Your task to perform on an android device: Open calendar and show me the first week of next month Image 0: 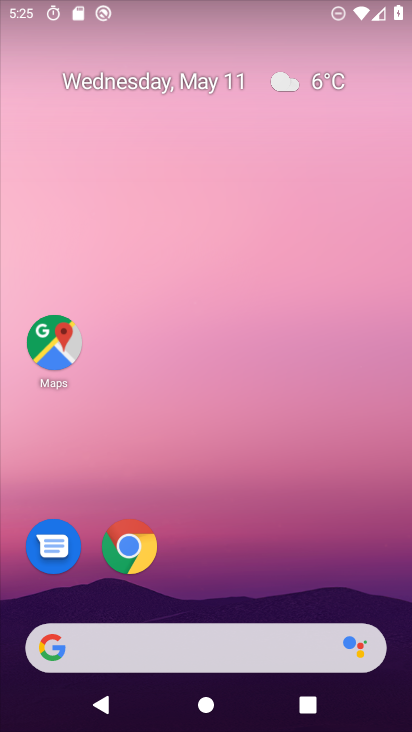
Step 0: drag from (245, 622) to (262, 28)
Your task to perform on an android device: Open calendar and show me the first week of next month Image 1: 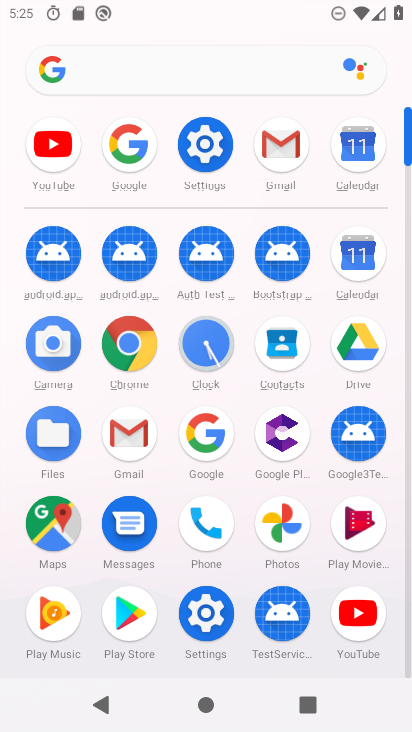
Step 1: click (354, 153)
Your task to perform on an android device: Open calendar and show me the first week of next month Image 2: 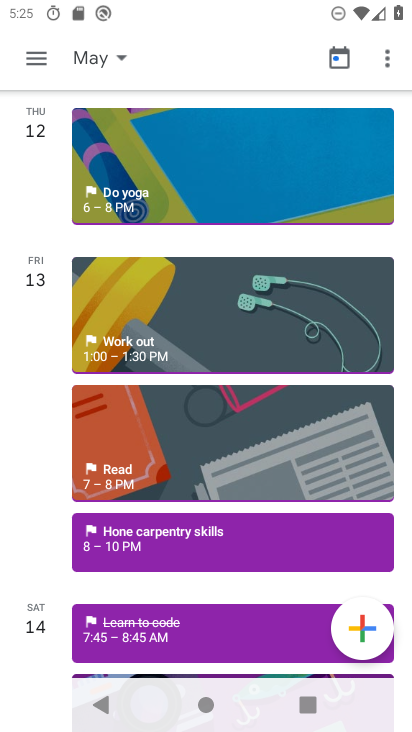
Step 2: click (87, 63)
Your task to perform on an android device: Open calendar and show me the first week of next month Image 3: 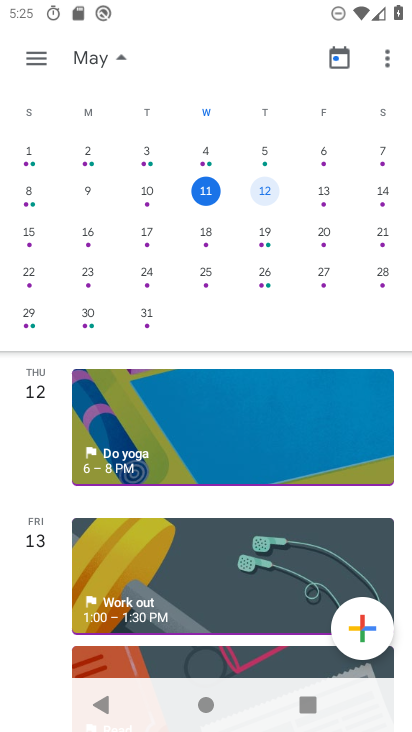
Step 3: task complete